Your task to perform on an android device: make emails show in primary in the gmail app Image 0: 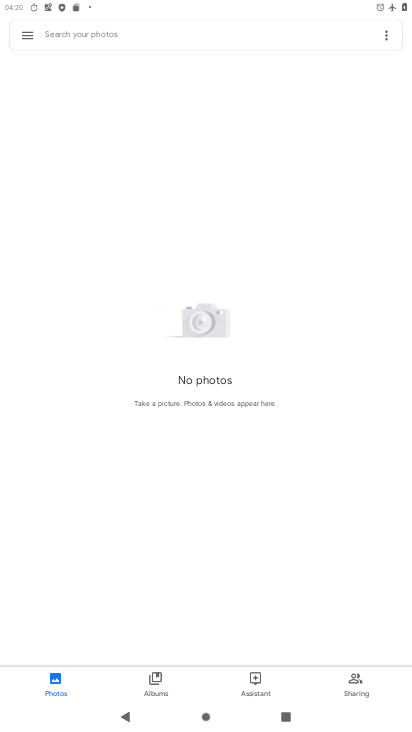
Step 0: press home button
Your task to perform on an android device: make emails show in primary in the gmail app Image 1: 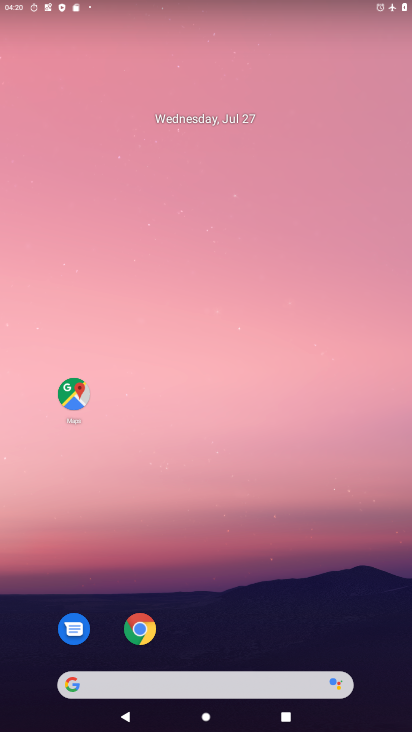
Step 1: drag from (283, 605) to (248, 57)
Your task to perform on an android device: make emails show in primary in the gmail app Image 2: 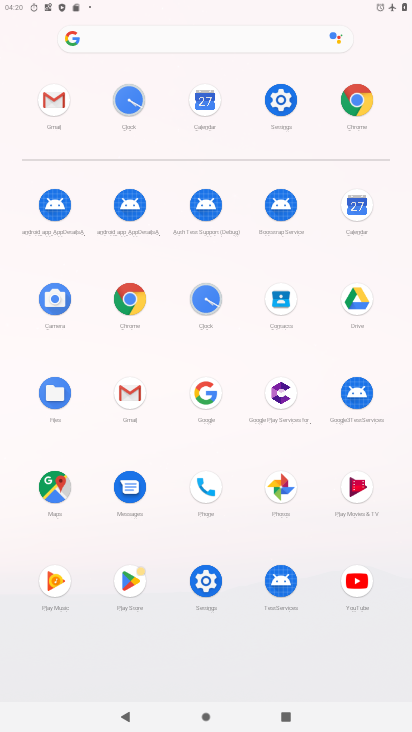
Step 2: click (51, 91)
Your task to perform on an android device: make emails show in primary in the gmail app Image 3: 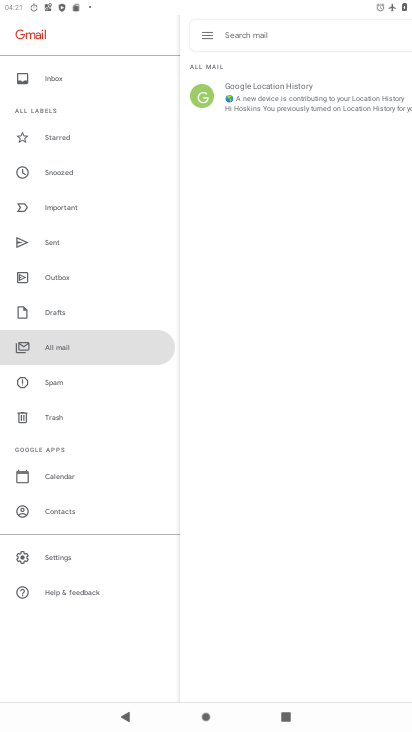
Step 3: click (65, 564)
Your task to perform on an android device: make emails show in primary in the gmail app Image 4: 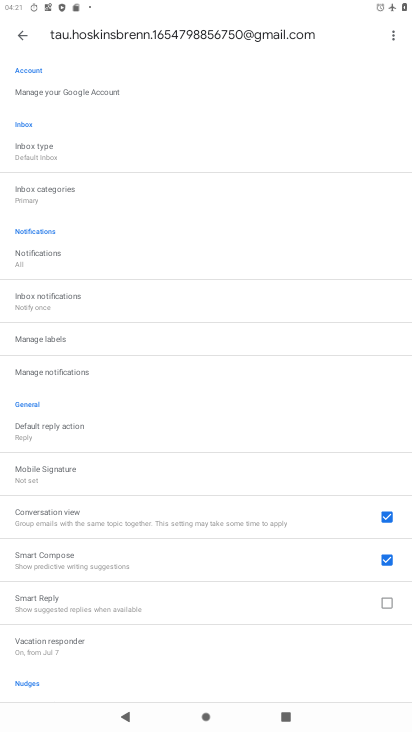
Step 4: click (48, 156)
Your task to perform on an android device: make emails show in primary in the gmail app Image 5: 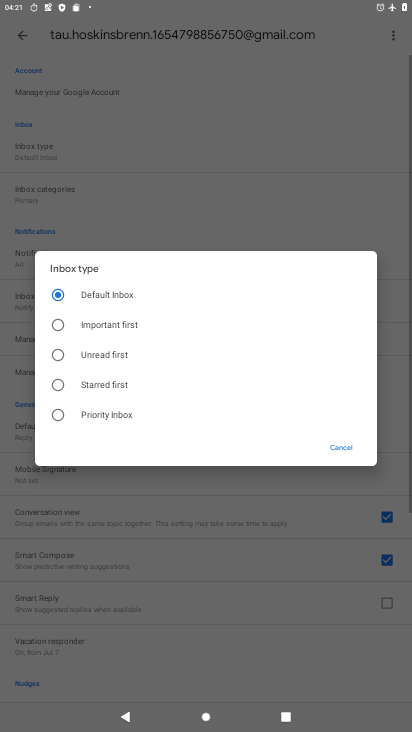
Step 5: click (83, 167)
Your task to perform on an android device: make emails show in primary in the gmail app Image 6: 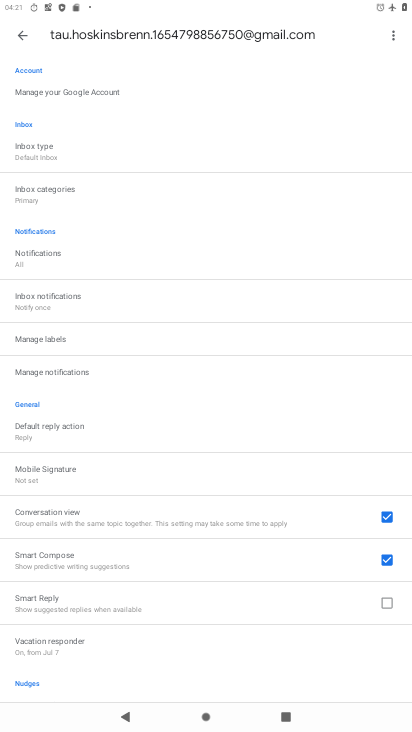
Step 6: click (40, 203)
Your task to perform on an android device: make emails show in primary in the gmail app Image 7: 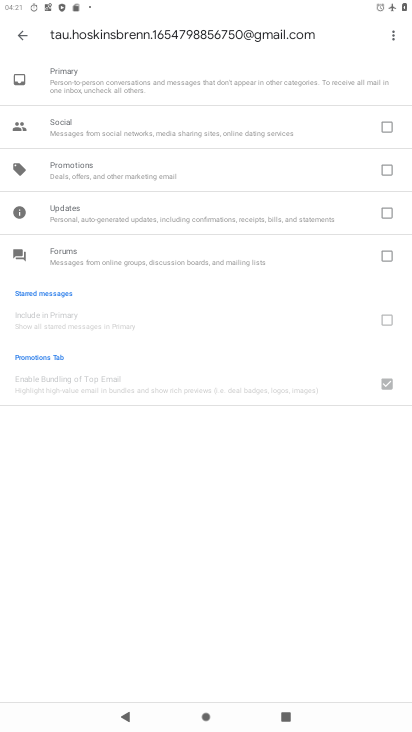
Step 7: task complete